Your task to perform on an android device: turn on showing notifications on the lock screen Image 0: 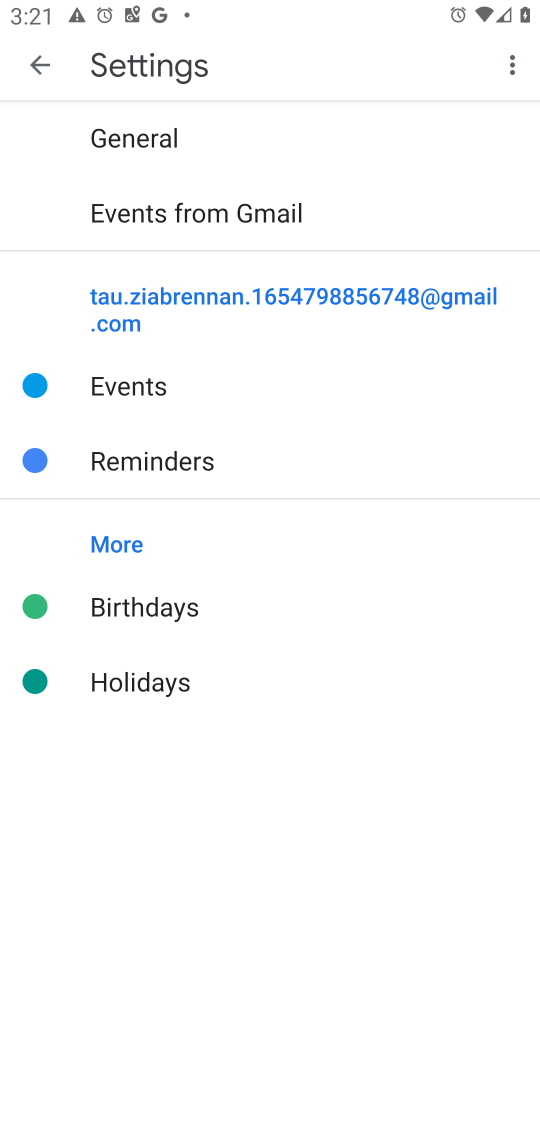
Step 0: press home button
Your task to perform on an android device: turn on showing notifications on the lock screen Image 1: 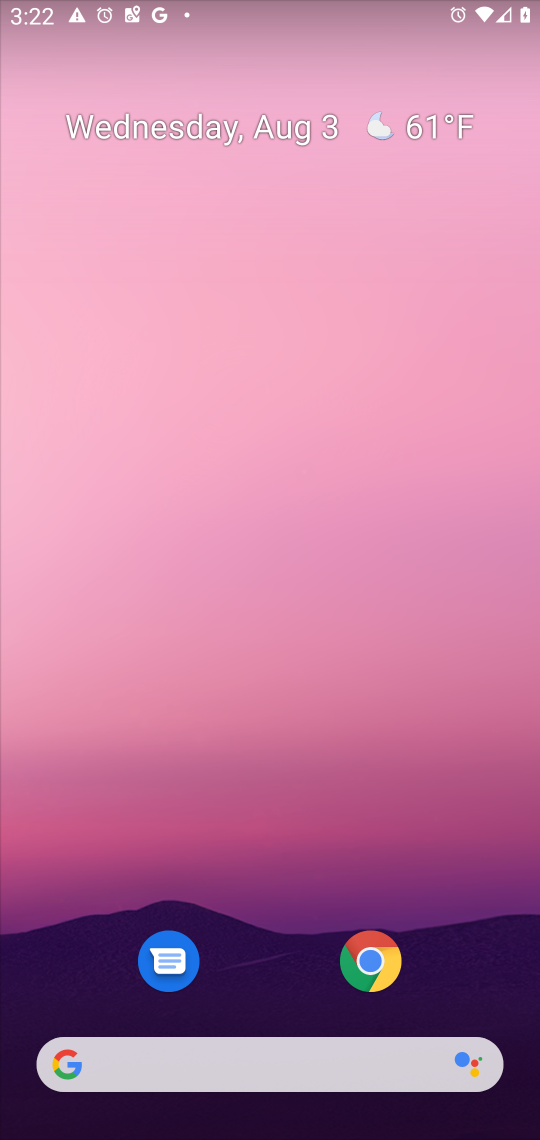
Step 1: drag from (268, 993) to (356, 79)
Your task to perform on an android device: turn on showing notifications on the lock screen Image 2: 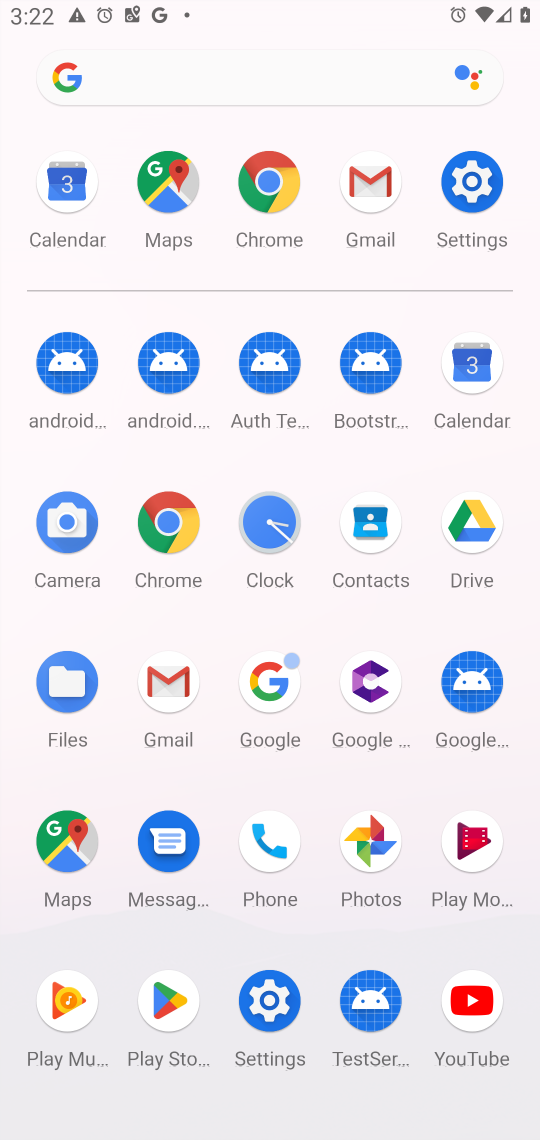
Step 2: click (472, 180)
Your task to perform on an android device: turn on showing notifications on the lock screen Image 3: 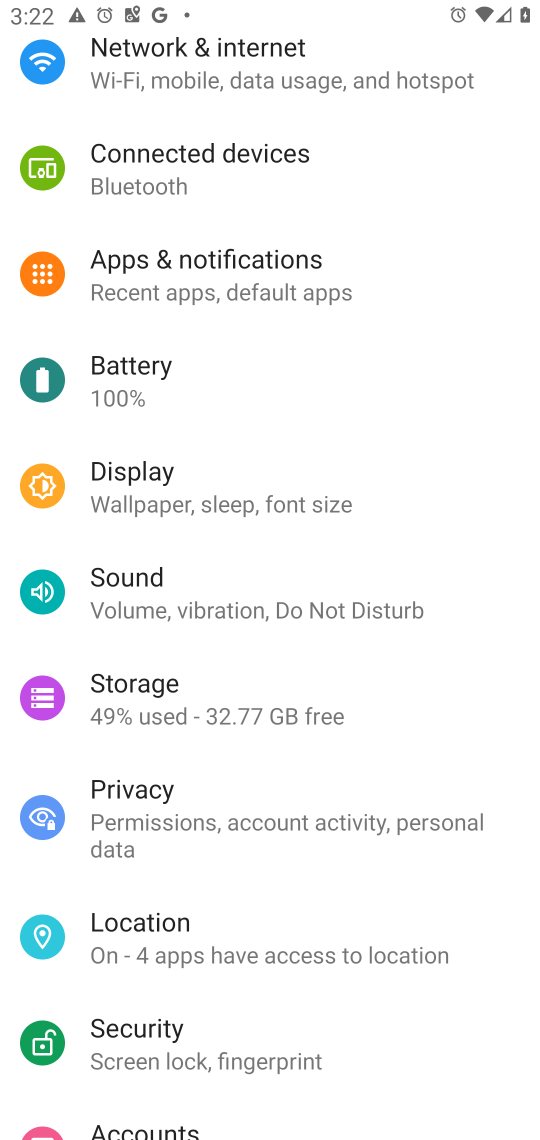
Step 3: click (236, 281)
Your task to perform on an android device: turn on showing notifications on the lock screen Image 4: 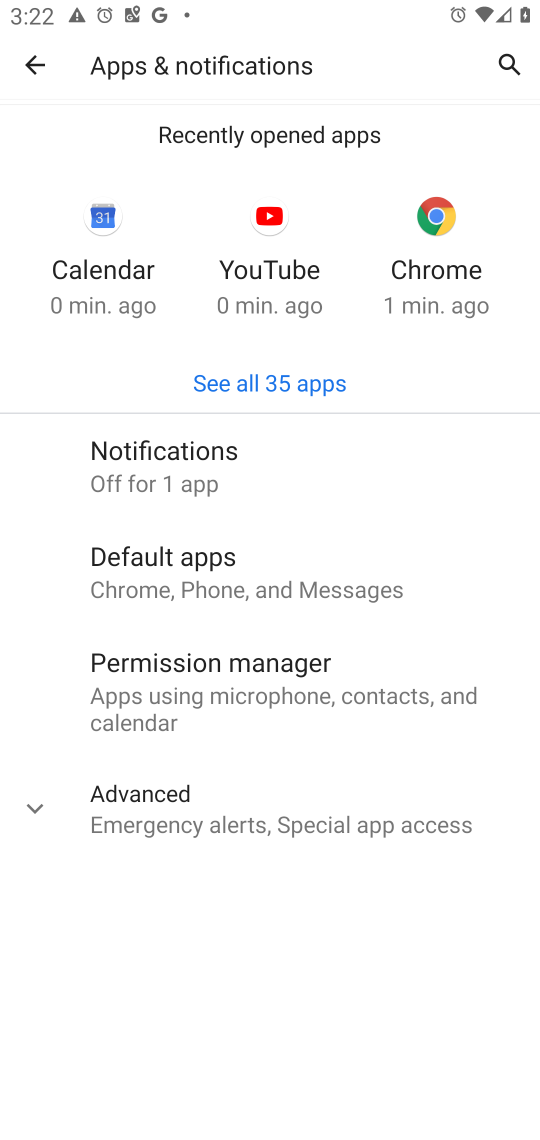
Step 4: click (135, 482)
Your task to perform on an android device: turn on showing notifications on the lock screen Image 5: 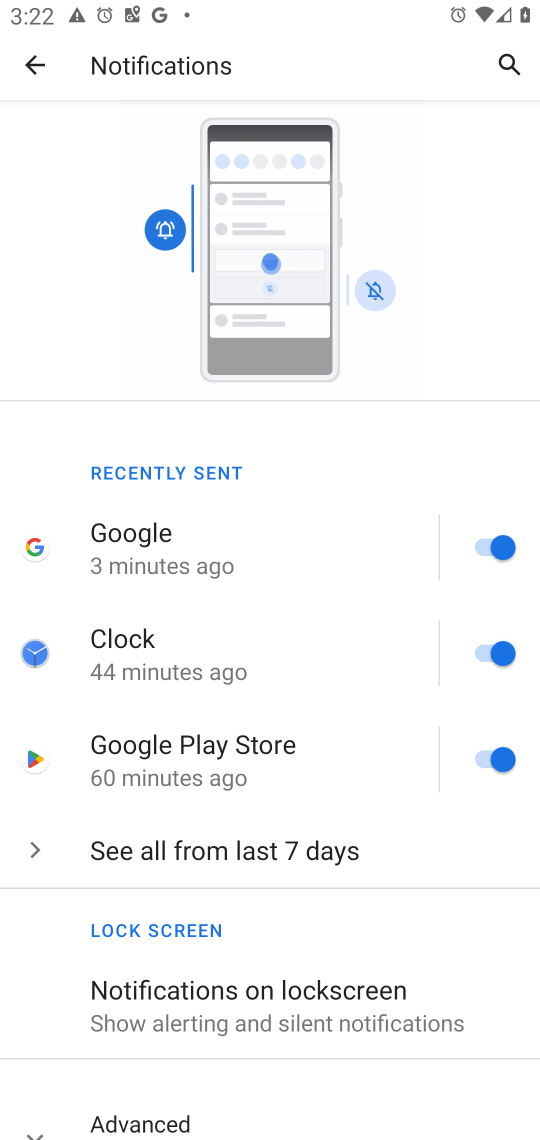
Step 5: click (198, 1000)
Your task to perform on an android device: turn on showing notifications on the lock screen Image 6: 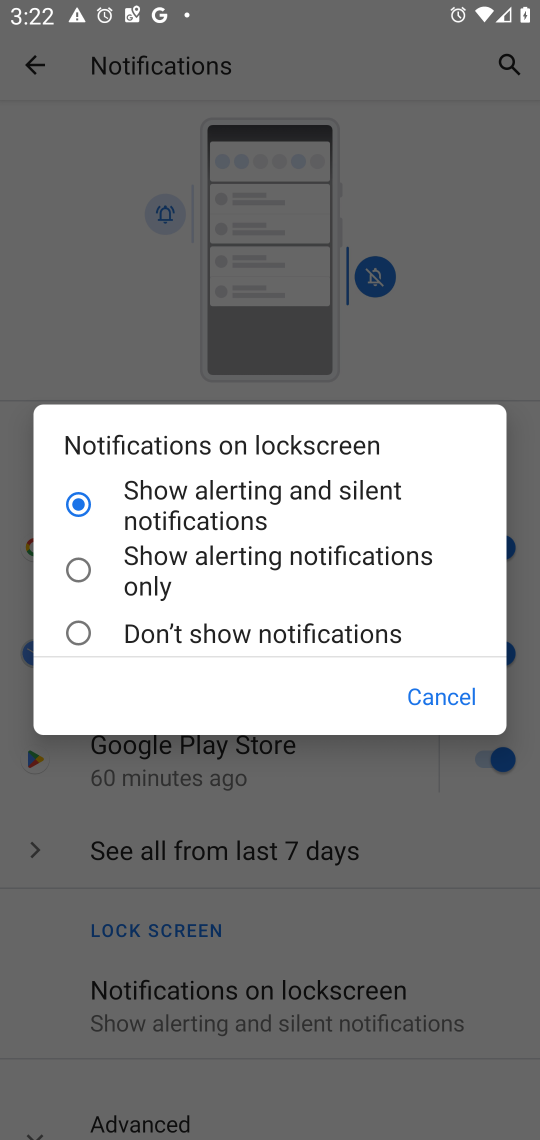
Step 6: task complete